Your task to perform on an android device: see sites visited before in the chrome app Image 0: 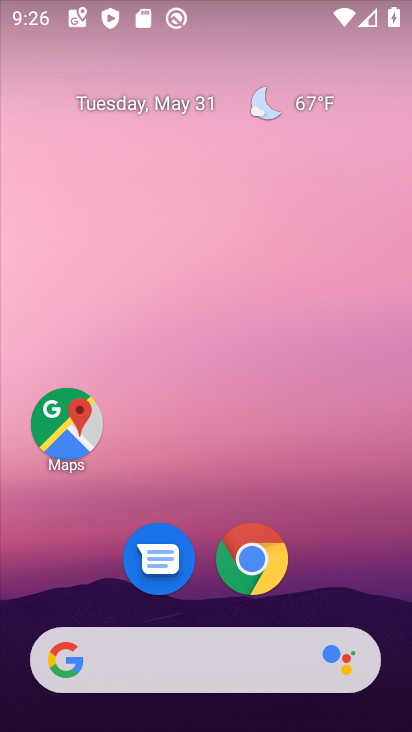
Step 0: click (263, 556)
Your task to perform on an android device: see sites visited before in the chrome app Image 1: 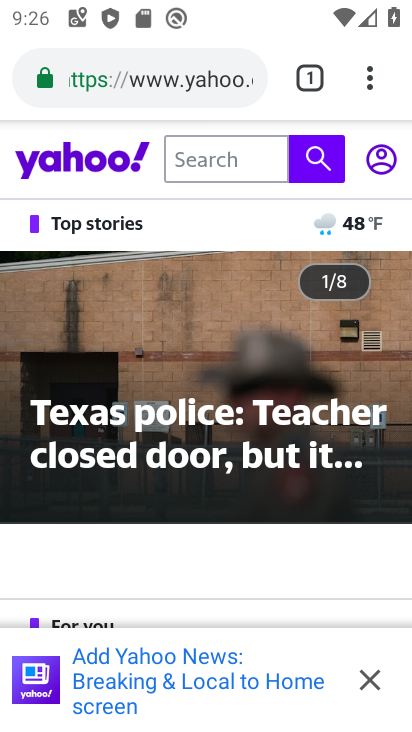
Step 1: click (360, 89)
Your task to perform on an android device: see sites visited before in the chrome app Image 2: 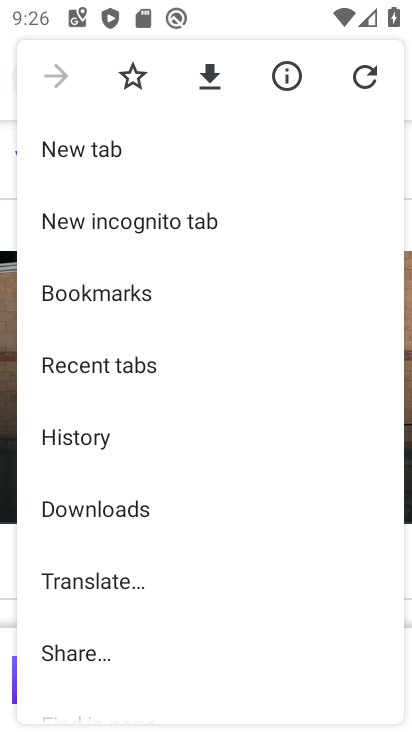
Step 2: click (104, 440)
Your task to perform on an android device: see sites visited before in the chrome app Image 3: 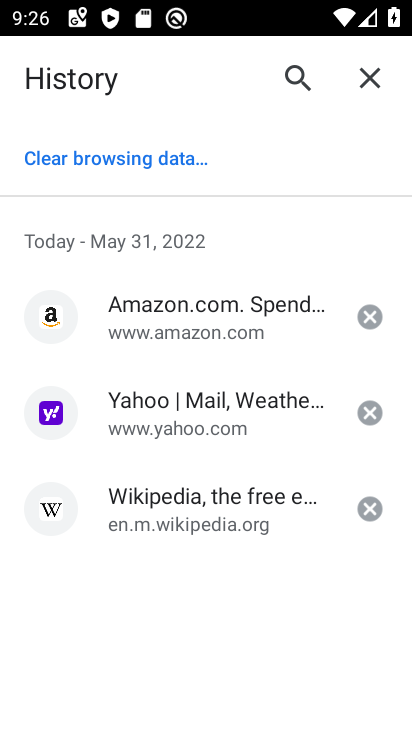
Step 3: task complete